Your task to perform on an android device: Show me popular videos on Youtube Image 0: 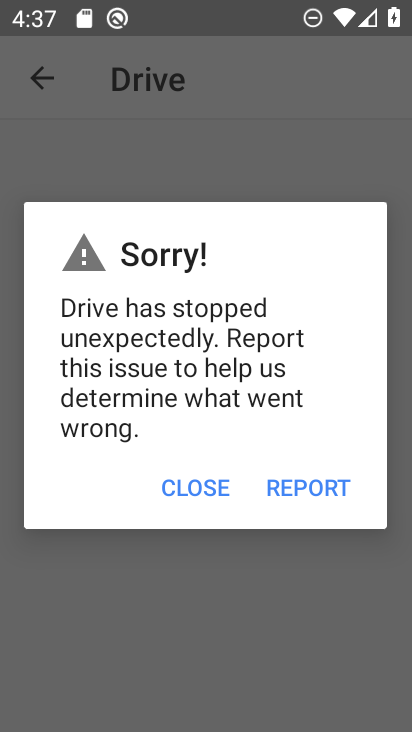
Step 0: click (180, 486)
Your task to perform on an android device: Show me popular videos on Youtube Image 1: 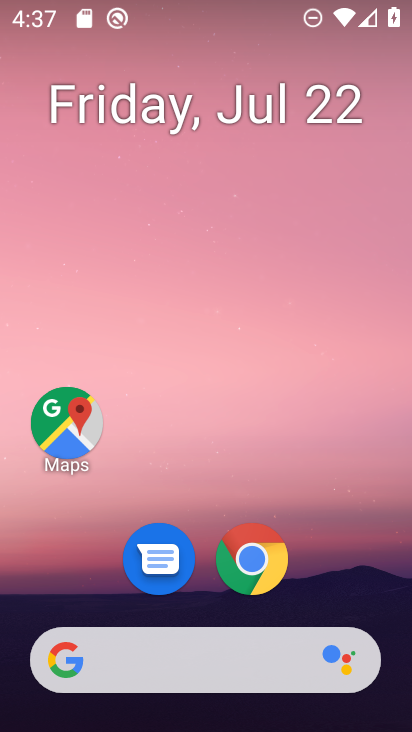
Step 1: drag from (77, 595) to (195, 40)
Your task to perform on an android device: Show me popular videos on Youtube Image 2: 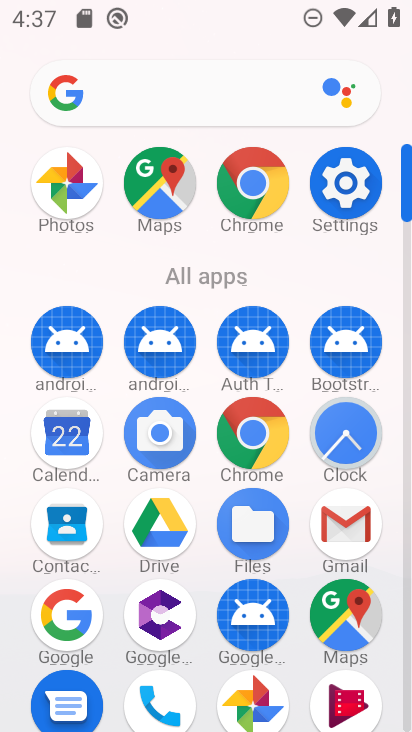
Step 2: drag from (108, 651) to (239, 89)
Your task to perform on an android device: Show me popular videos on Youtube Image 3: 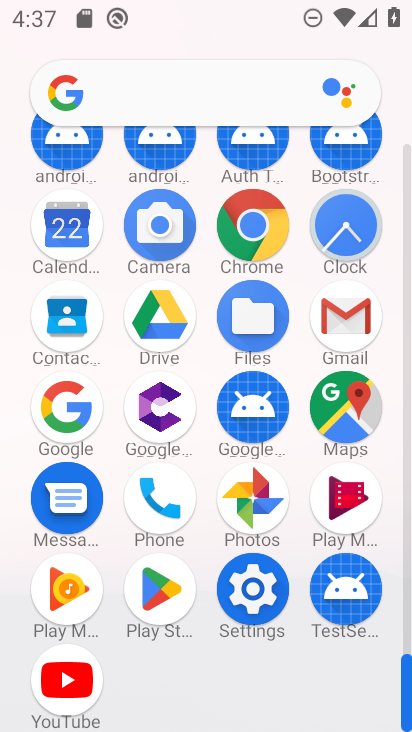
Step 3: click (72, 683)
Your task to perform on an android device: Show me popular videos on Youtube Image 4: 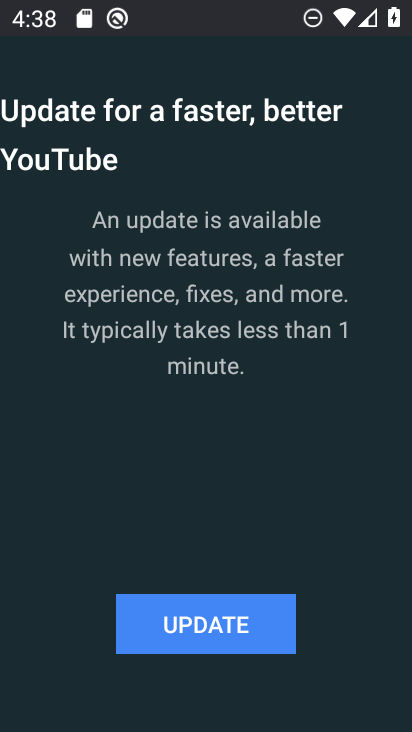
Step 4: task complete